Your task to perform on an android device: check out phone information Image 0: 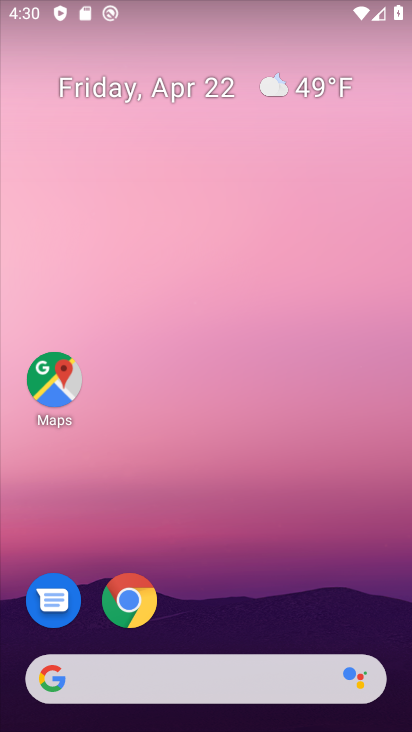
Step 0: drag from (211, 548) to (200, 15)
Your task to perform on an android device: check out phone information Image 1: 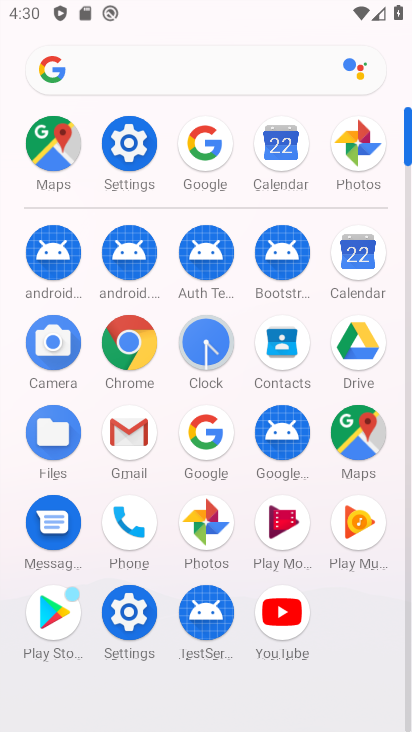
Step 1: click (132, 143)
Your task to perform on an android device: check out phone information Image 2: 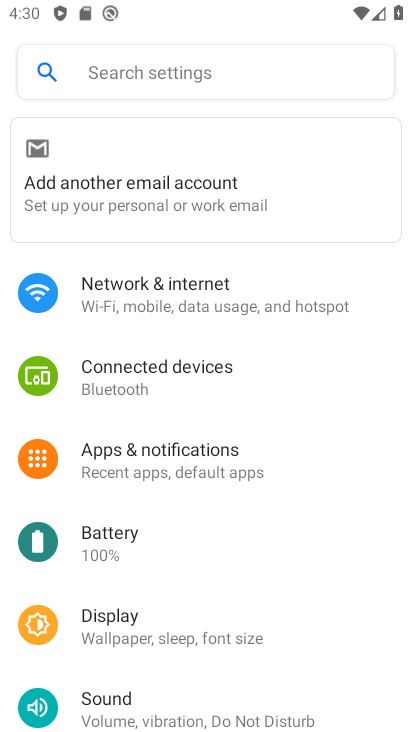
Step 2: drag from (143, 426) to (167, 339)
Your task to perform on an android device: check out phone information Image 3: 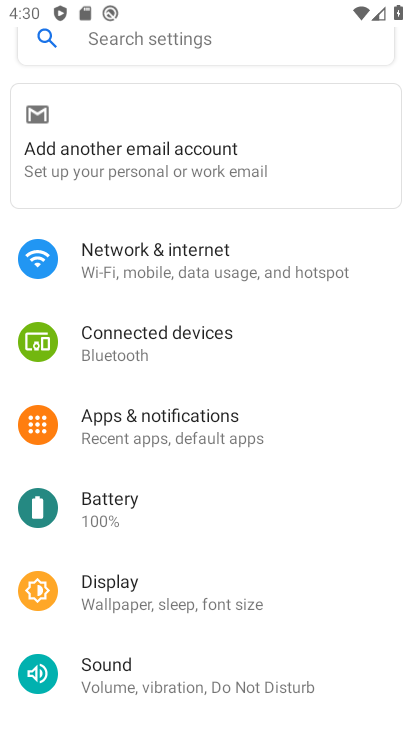
Step 3: drag from (134, 464) to (159, 373)
Your task to perform on an android device: check out phone information Image 4: 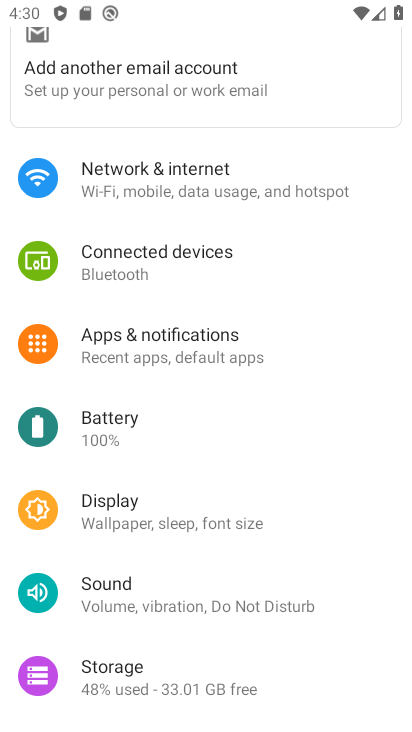
Step 4: drag from (152, 471) to (165, 366)
Your task to perform on an android device: check out phone information Image 5: 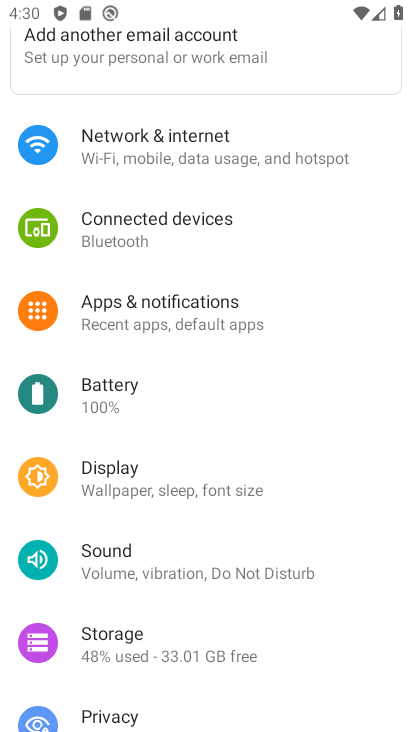
Step 5: drag from (146, 447) to (171, 312)
Your task to perform on an android device: check out phone information Image 6: 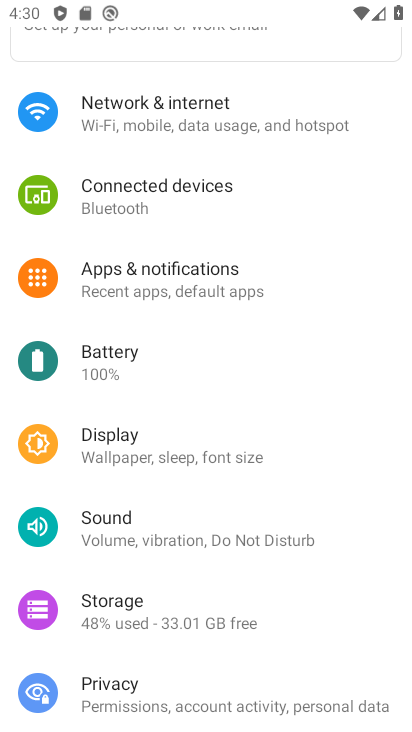
Step 6: drag from (112, 481) to (129, 349)
Your task to perform on an android device: check out phone information Image 7: 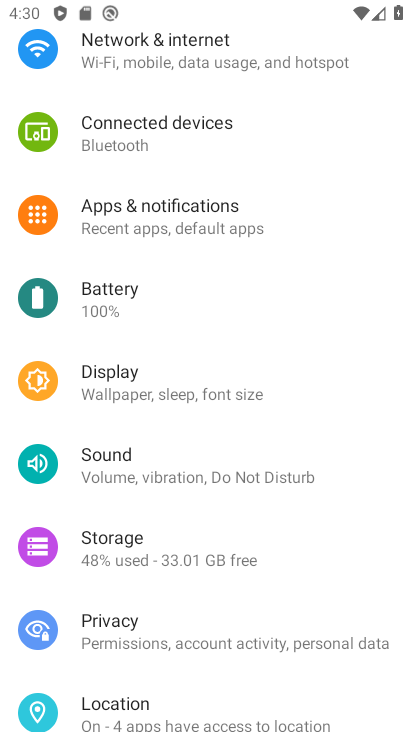
Step 7: drag from (117, 440) to (162, 332)
Your task to perform on an android device: check out phone information Image 8: 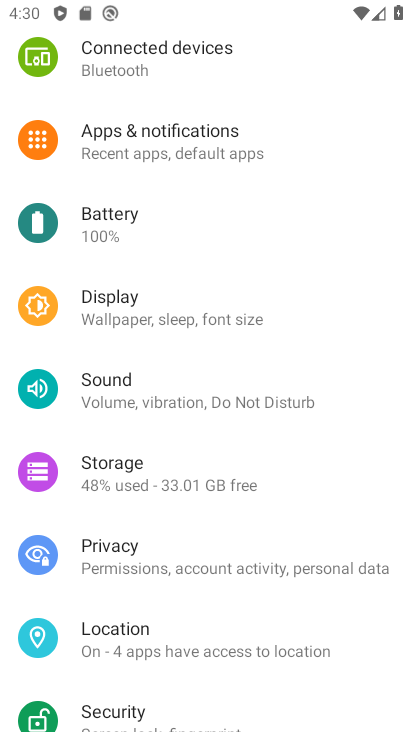
Step 8: drag from (118, 424) to (178, 327)
Your task to perform on an android device: check out phone information Image 9: 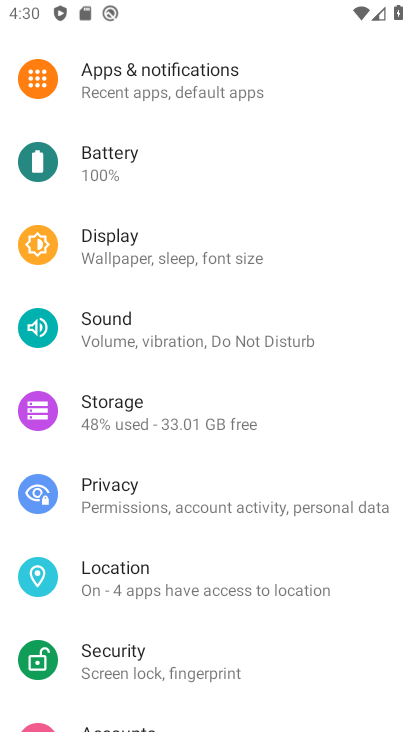
Step 9: drag from (109, 376) to (187, 276)
Your task to perform on an android device: check out phone information Image 10: 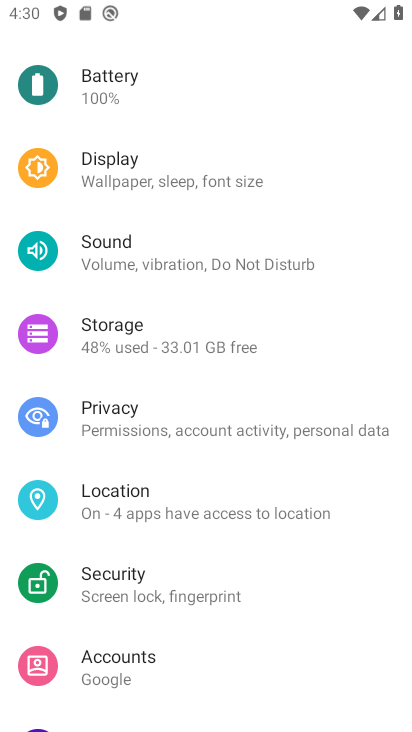
Step 10: drag from (109, 383) to (200, 272)
Your task to perform on an android device: check out phone information Image 11: 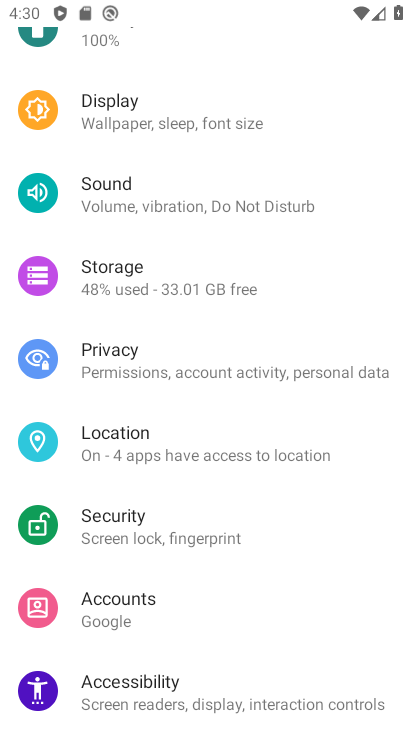
Step 11: drag from (102, 473) to (169, 348)
Your task to perform on an android device: check out phone information Image 12: 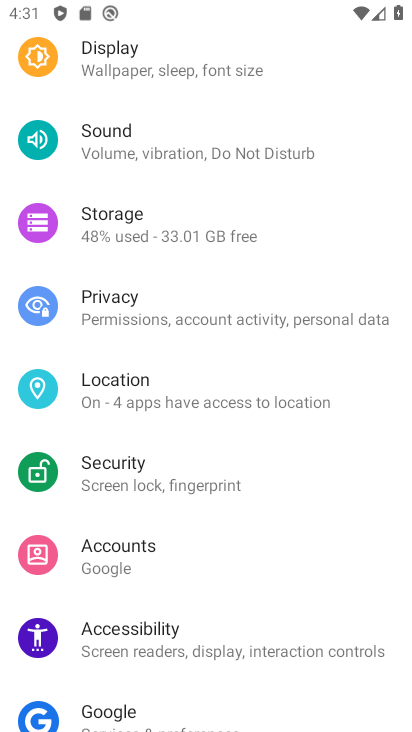
Step 12: drag from (92, 438) to (196, 328)
Your task to perform on an android device: check out phone information Image 13: 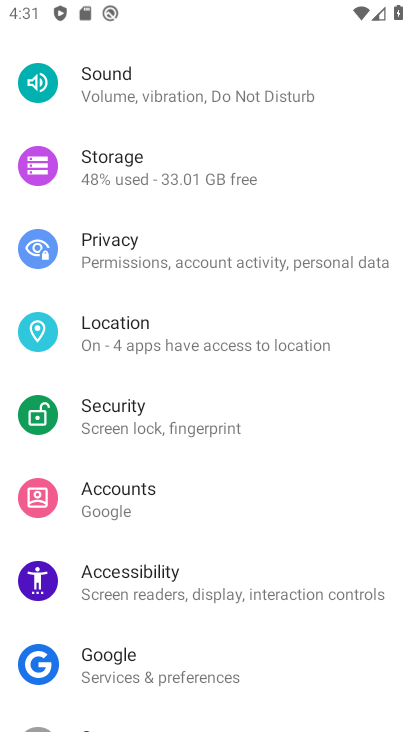
Step 13: drag from (148, 471) to (221, 326)
Your task to perform on an android device: check out phone information Image 14: 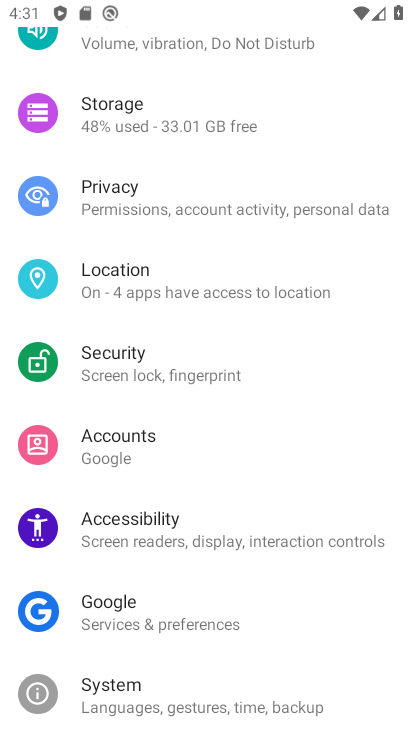
Step 14: drag from (135, 556) to (197, 397)
Your task to perform on an android device: check out phone information Image 15: 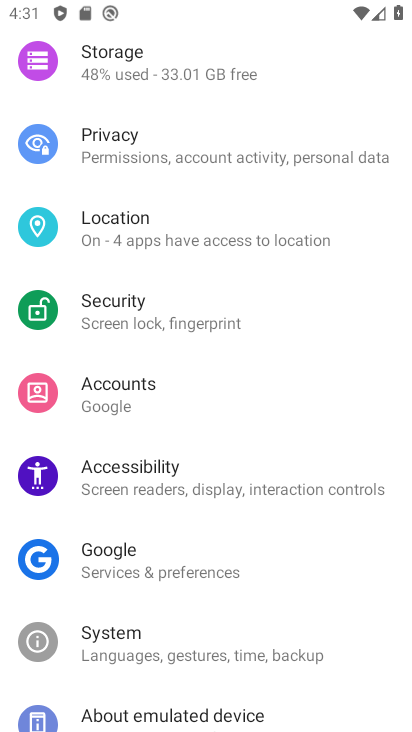
Step 15: drag from (136, 536) to (239, 373)
Your task to perform on an android device: check out phone information Image 16: 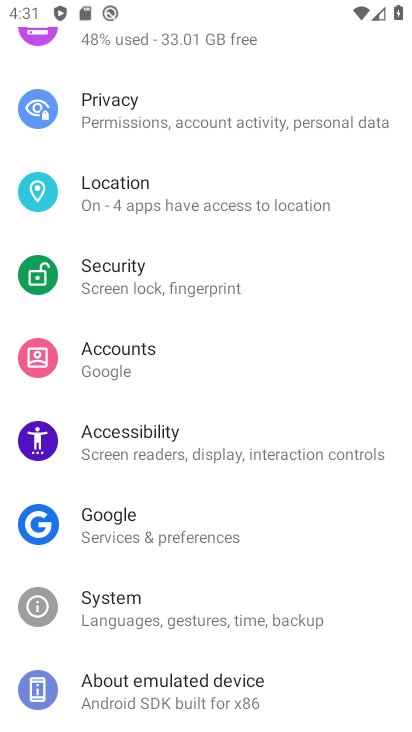
Step 16: click (97, 692)
Your task to perform on an android device: check out phone information Image 17: 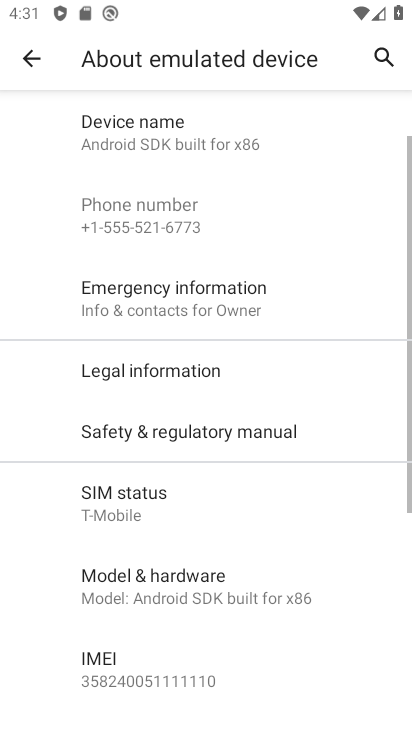
Step 17: task complete